Your task to perform on an android device: Open Reddit.com Image 0: 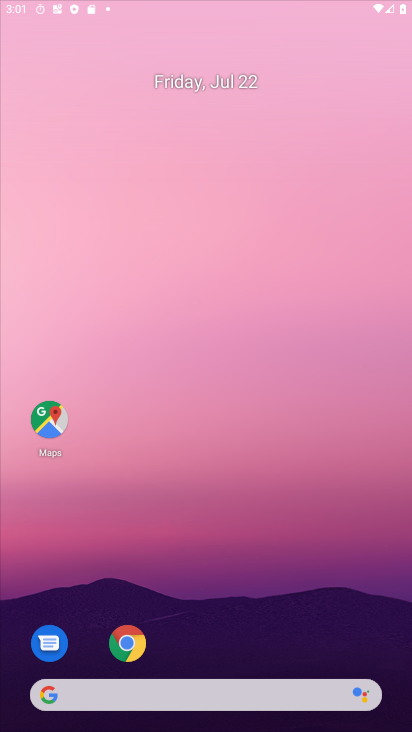
Step 0: press home button
Your task to perform on an android device: Open Reddit.com Image 1: 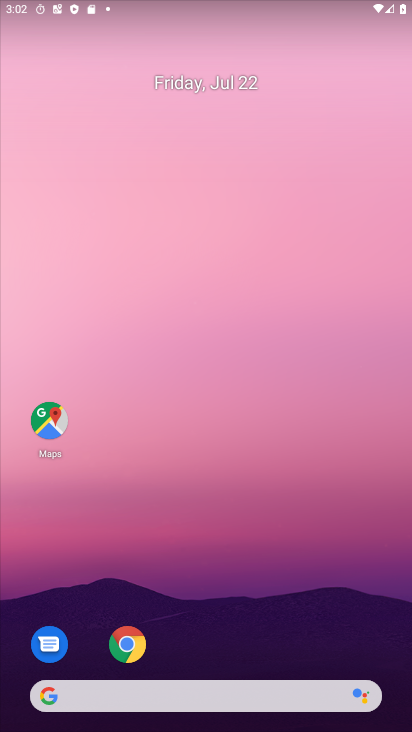
Step 1: click (41, 692)
Your task to perform on an android device: Open Reddit.com Image 2: 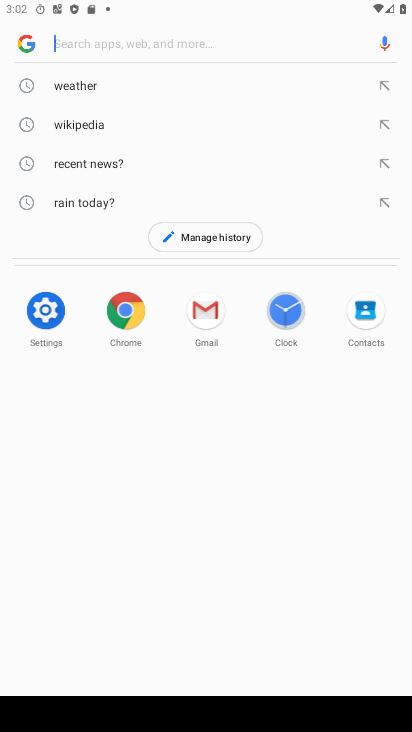
Step 2: type "Reddit.com"
Your task to perform on an android device: Open Reddit.com Image 3: 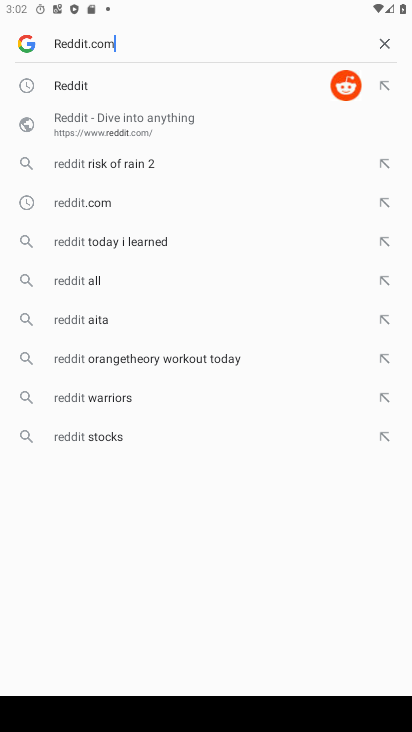
Step 3: press enter
Your task to perform on an android device: Open Reddit.com Image 4: 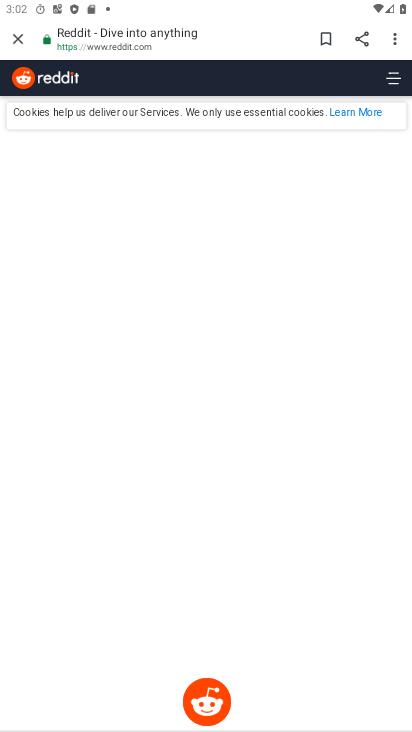
Step 4: task complete